Your task to perform on an android device: What's the weather? Image 0: 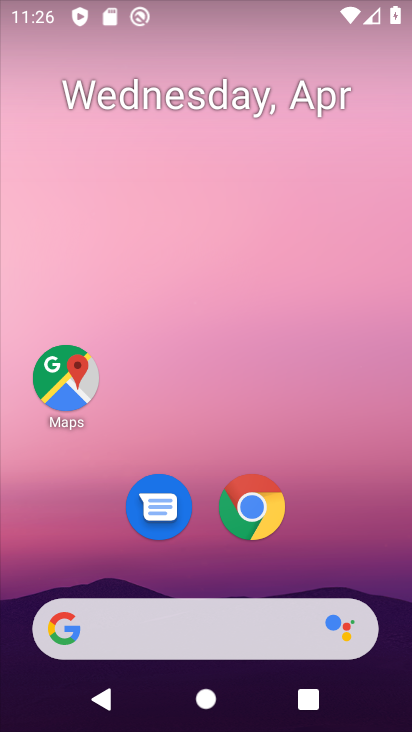
Step 0: drag from (234, 463) to (196, 128)
Your task to perform on an android device: What's the weather? Image 1: 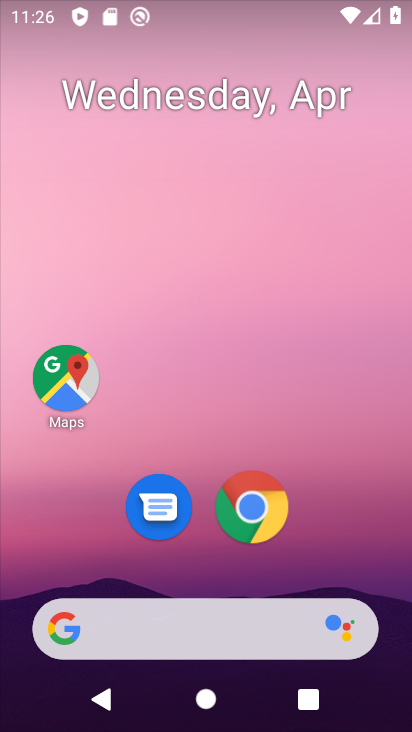
Step 1: drag from (186, 524) to (117, 203)
Your task to perform on an android device: What's the weather? Image 2: 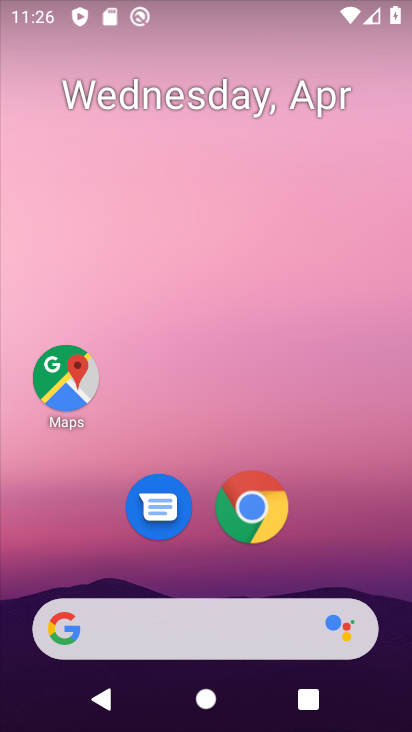
Step 2: drag from (230, 556) to (208, 267)
Your task to perform on an android device: What's the weather? Image 3: 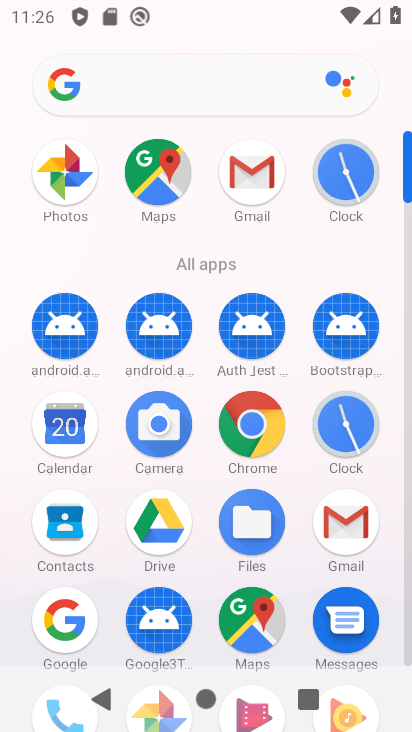
Step 3: drag from (249, 641) to (143, 123)
Your task to perform on an android device: What's the weather? Image 4: 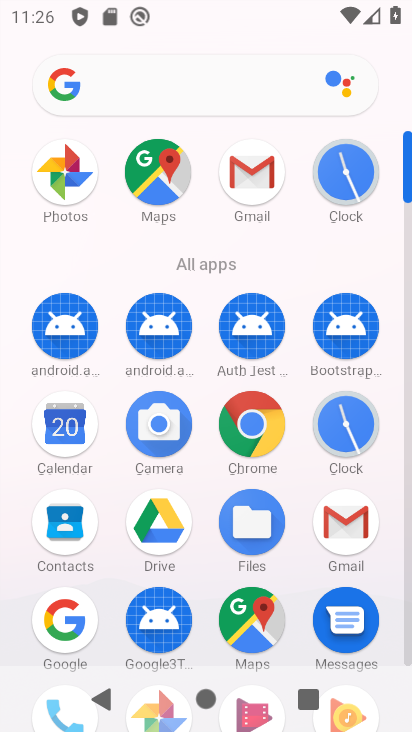
Step 4: press home button
Your task to perform on an android device: What's the weather? Image 5: 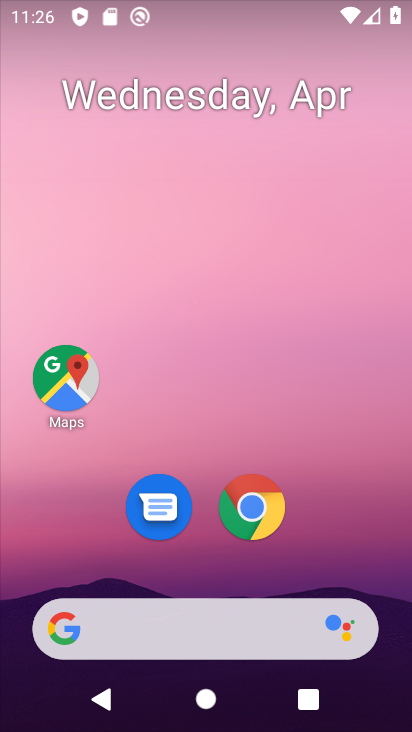
Step 5: drag from (22, 218) to (409, 347)
Your task to perform on an android device: What's the weather? Image 6: 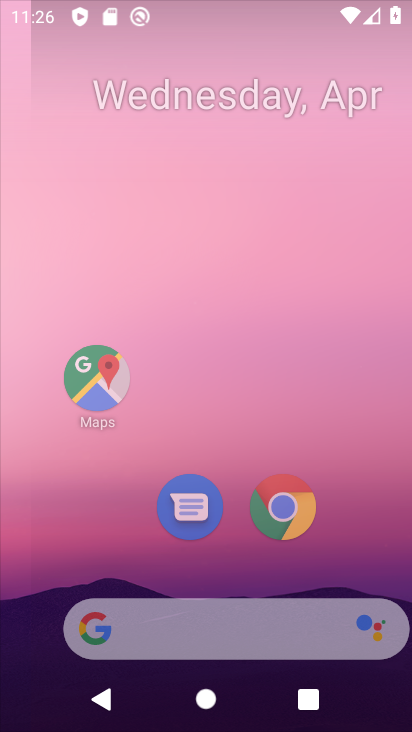
Step 6: drag from (20, 216) to (395, 358)
Your task to perform on an android device: What's the weather? Image 7: 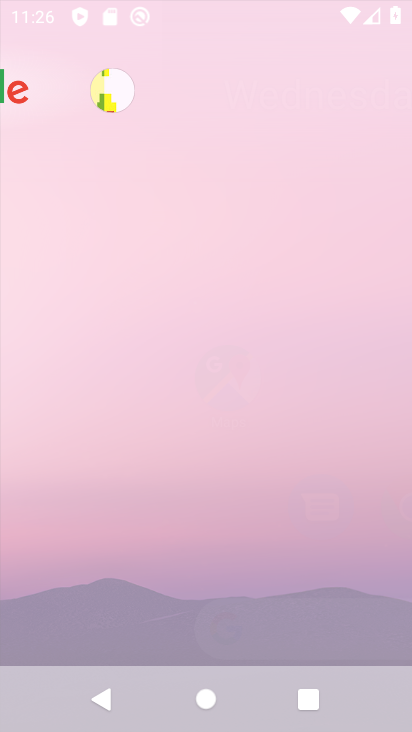
Step 7: drag from (21, 214) to (382, 268)
Your task to perform on an android device: What's the weather? Image 8: 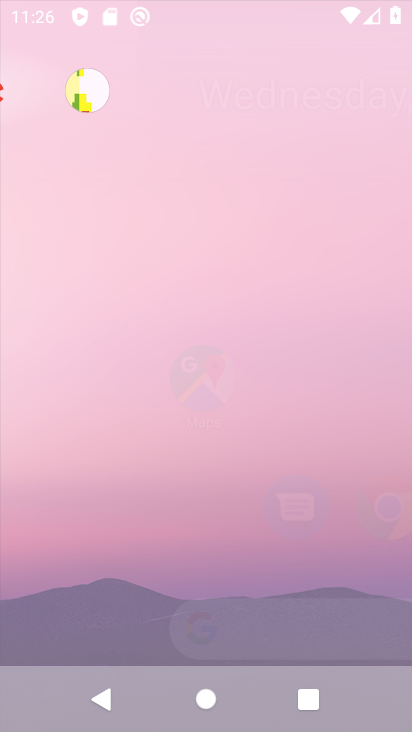
Step 8: drag from (120, 214) to (379, 283)
Your task to perform on an android device: What's the weather? Image 9: 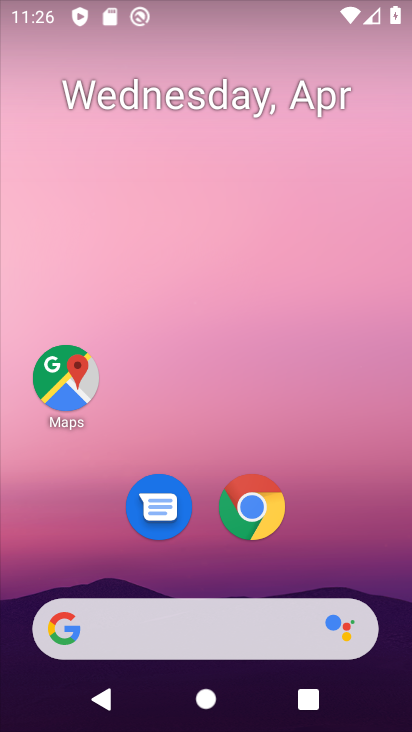
Step 9: click (381, 396)
Your task to perform on an android device: What's the weather? Image 10: 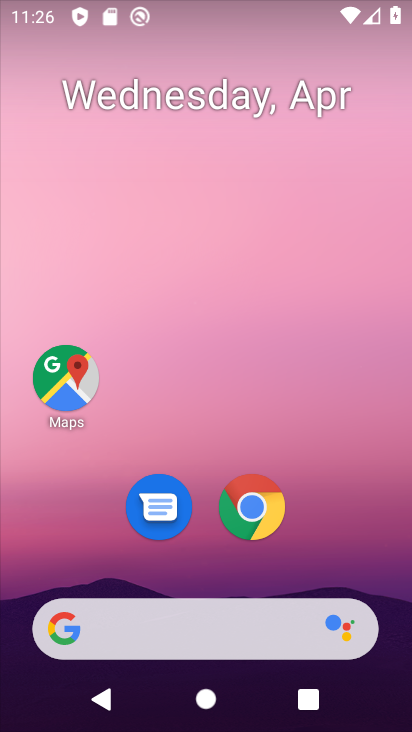
Step 10: drag from (16, 236) to (280, 315)
Your task to perform on an android device: What's the weather? Image 11: 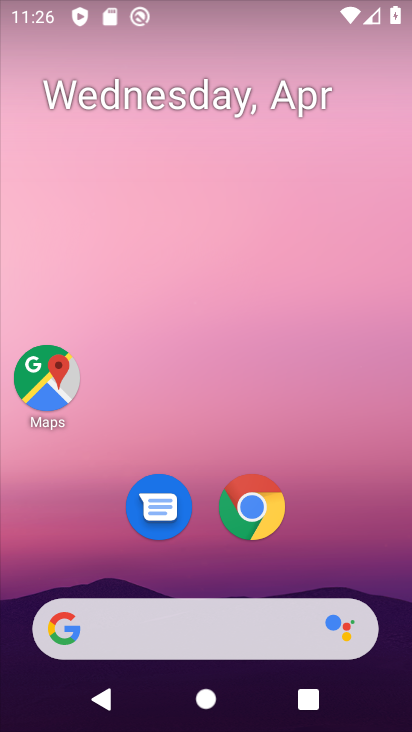
Step 11: drag from (54, 258) to (317, 469)
Your task to perform on an android device: What's the weather? Image 12: 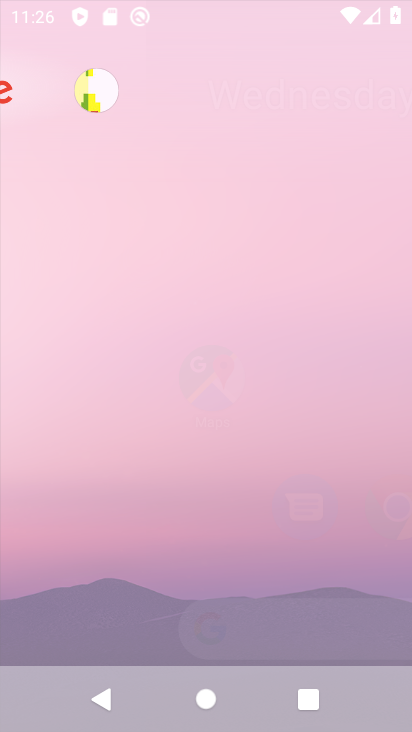
Step 12: click (77, 285)
Your task to perform on an android device: What's the weather? Image 13: 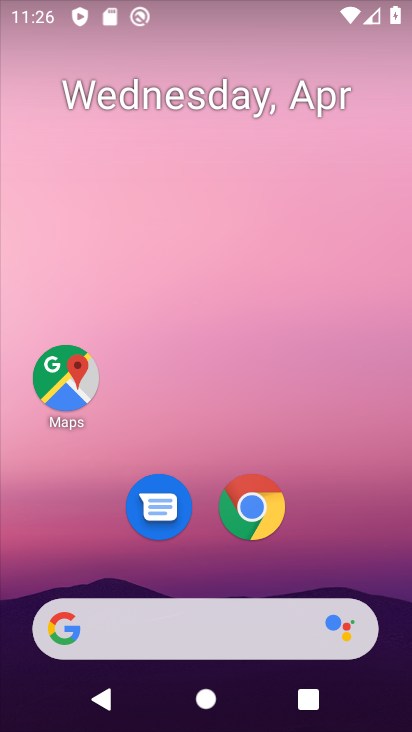
Step 13: drag from (77, 256) to (362, 343)
Your task to perform on an android device: What's the weather? Image 14: 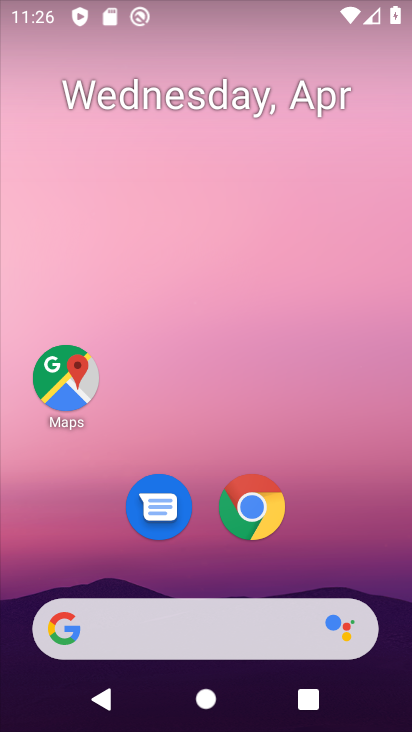
Step 14: drag from (48, 245) to (205, 292)
Your task to perform on an android device: What's the weather? Image 15: 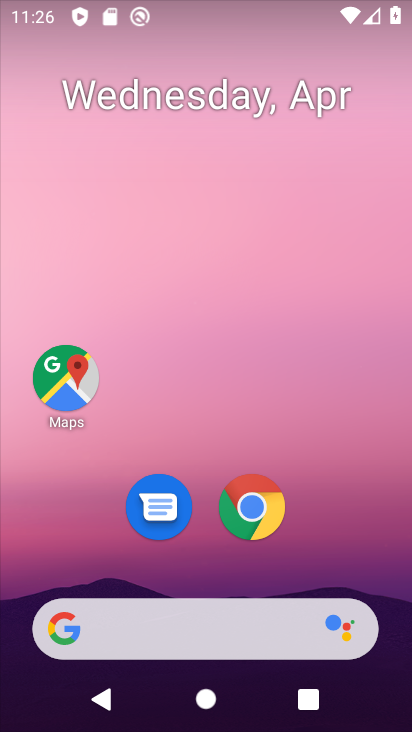
Step 15: drag from (54, 198) to (205, 264)
Your task to perform on an android device: What's the weather? Image 16: 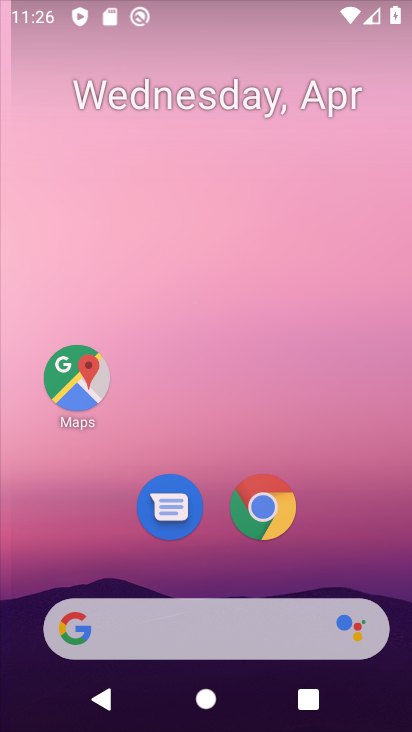
Step 16: click (397, 347)
Your task to perform on an android device: What's the weather? Image 17: 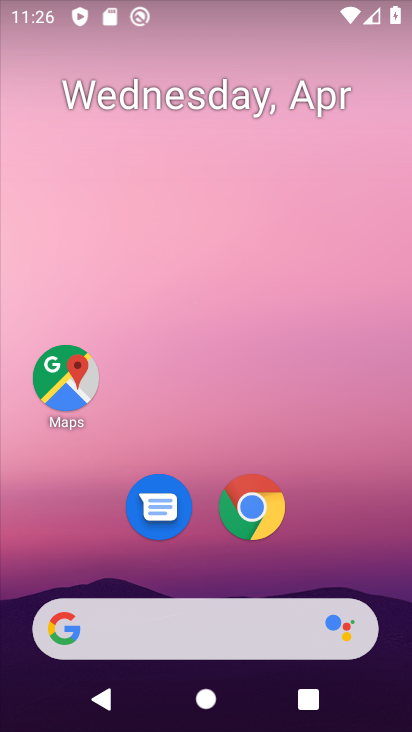
Step 17: click (367, 343)
Your task to perform on an android device: What's the weather? Image 18: 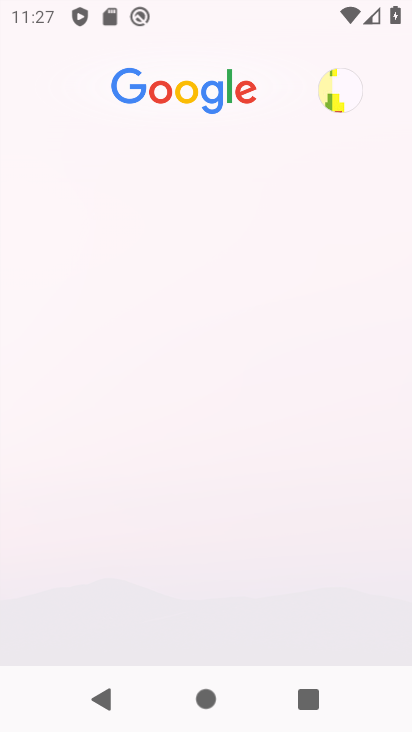
Step 18: drag from (357, 324) to (388, 305)
Your task to perform on an android device: What's the weather? Image 19: 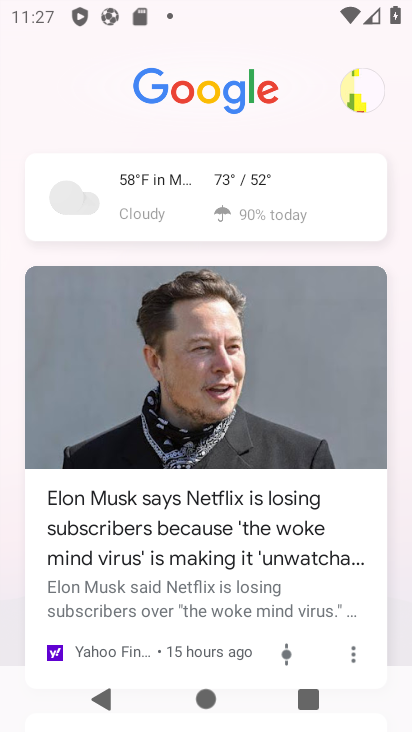
Step 19: click (229, 194)
Your task to perform on an android device: What's the weather? Image 20: 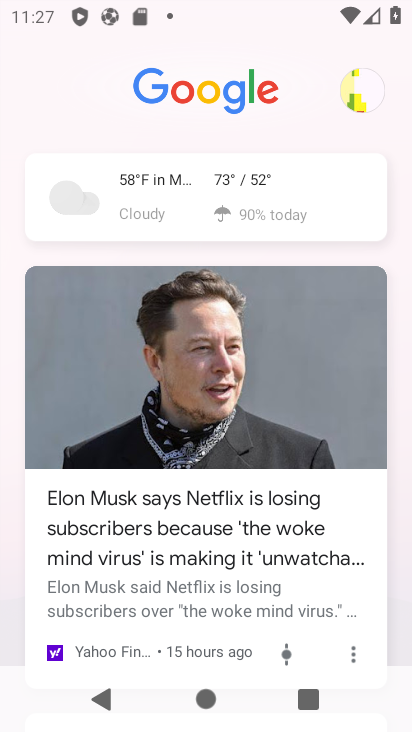
Step 20: task complete